Your task to perform on an android device: read, delete, or share a saved page in the chrome app Image 0: 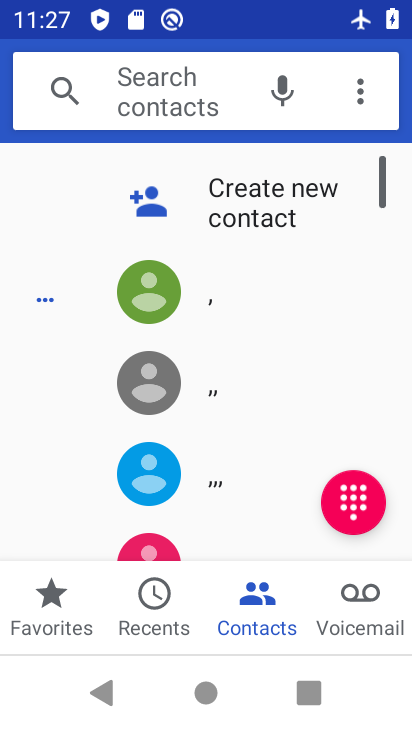
Step 0: press home button
Your task to perform on an android device: read, delete, or share a saved page in the chrome app Image 1: 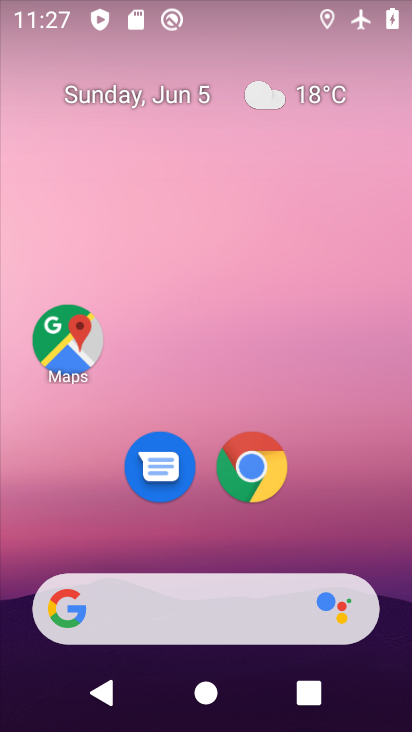
Step 1: click (243, 491)
Your task to perform on an android device: read, delete, or share a saved page in the chrome app Image 2: 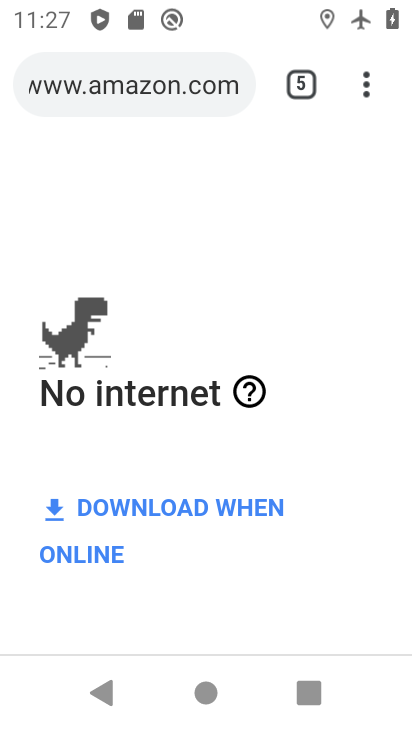
Step 2: click (360, 94)
Your task to perform on an android device: read, delete, or share a saved page in the chrome app Image 3: 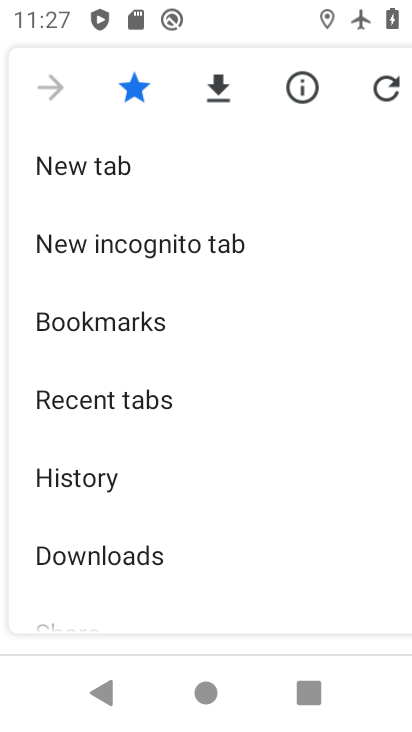
Step 3: click (90, 537)
Your task to perform on an android device: read, delete, or share a saved page in the chrome app Image 4: 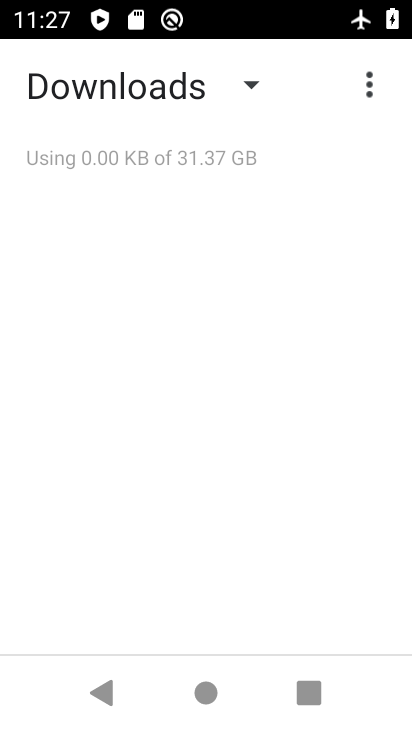
Step 4: task complete